Your task to perform on an android device: move a message to another label in the gmail app Image 0: 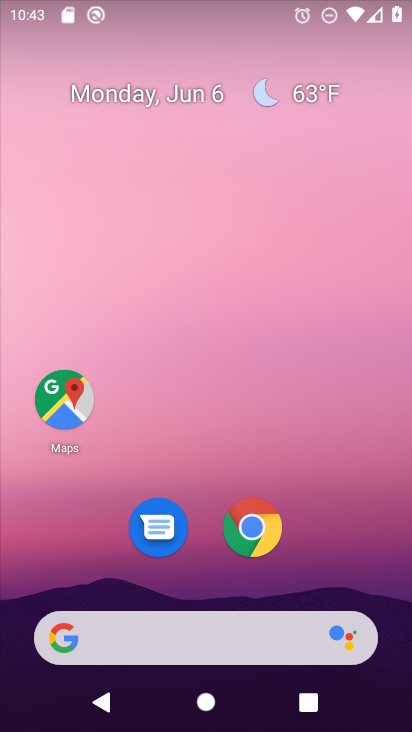
Step 0: drag from (360, 582) to (370, 241)
Your task to perform on an android device: move a message to another label in the gmail app Image 1: 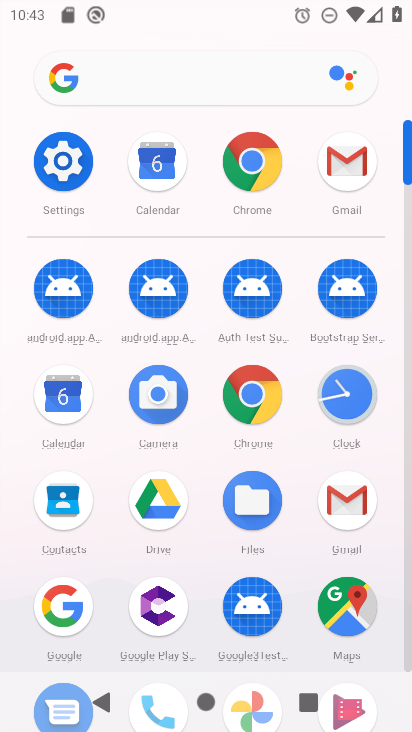
Step 1: click (351, 498)
Your task to perform on an android device: move a message to another label in the gmail app Image 2: 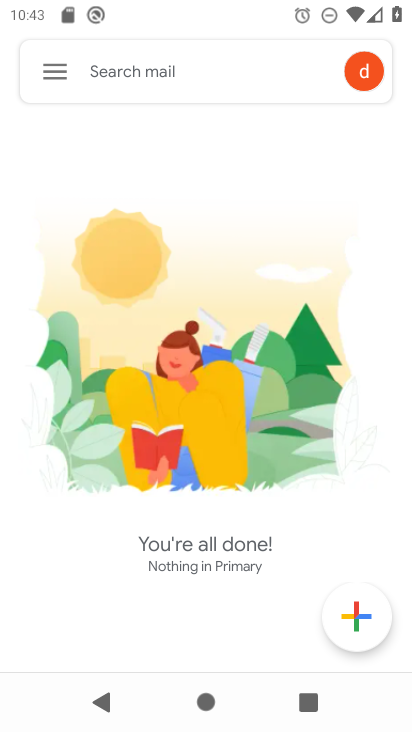
Step 2: task complete